Your task to perform on an android device: open a bookmark in the chrome app Image 0: 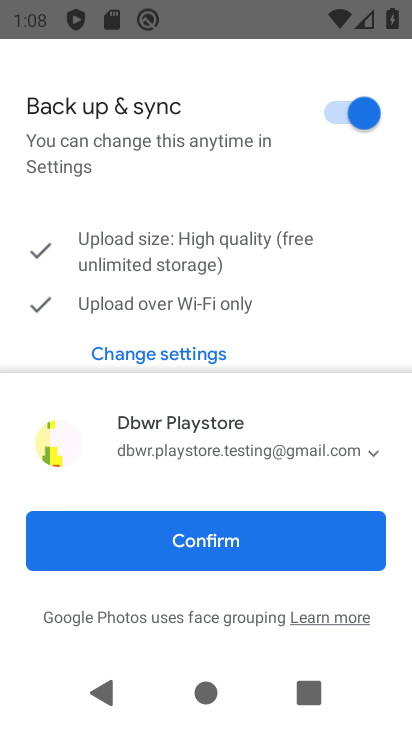
Step 0: press home button
Your task to perform on an android device: open a bookmark in the chrome app Image 1: 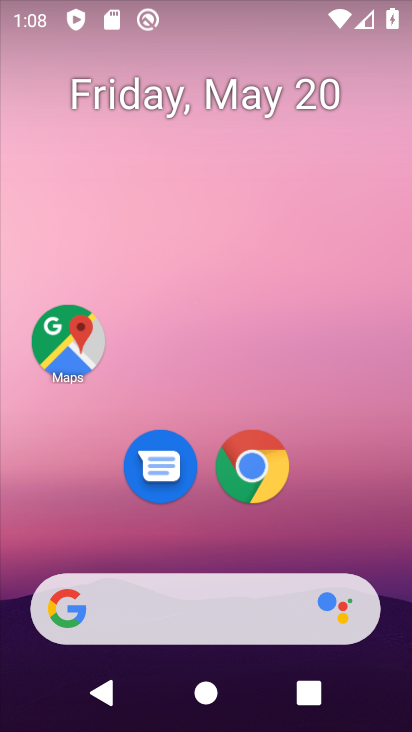
Step 1: click (224, 453)
Your task to perform on an android device: open a bookmark in the chrome app Image 2: 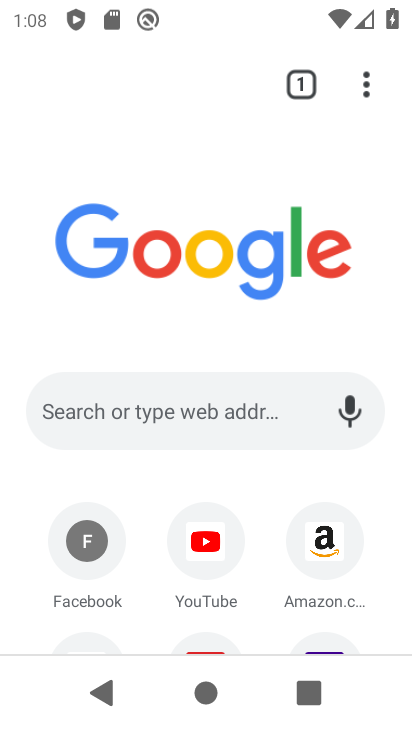
Step 2: click (370, 91)
Your task to perform on an android device: open a bookmark in the chrome app Image 3: 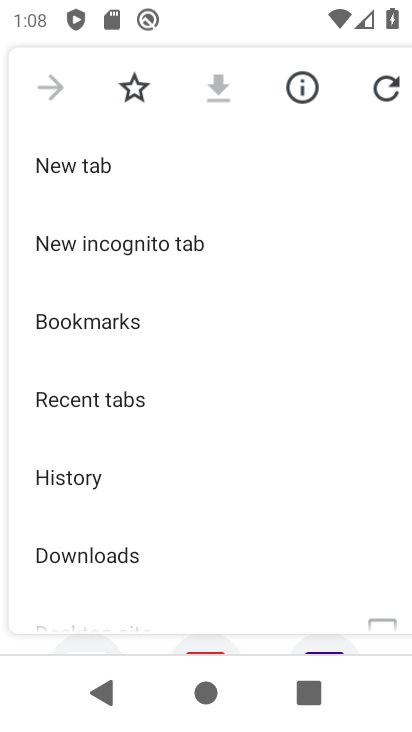
Step 3: click (142, 319)
Your task to perform on an android device: open a bookmark in the chrome app Image 4: 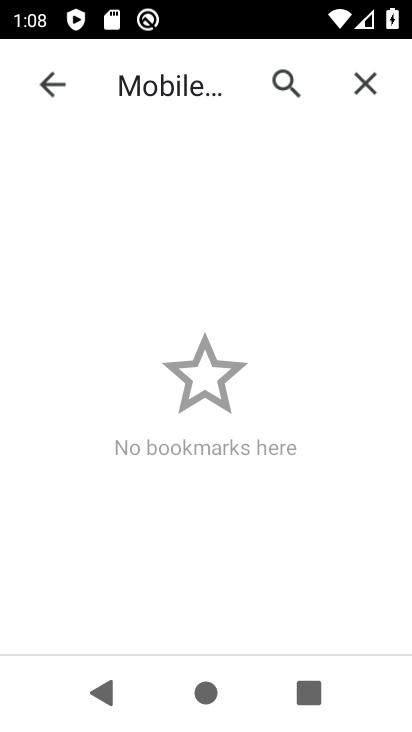
Step 4: task complete